Your task to perform on an android device: Go to notification settings Image 0: 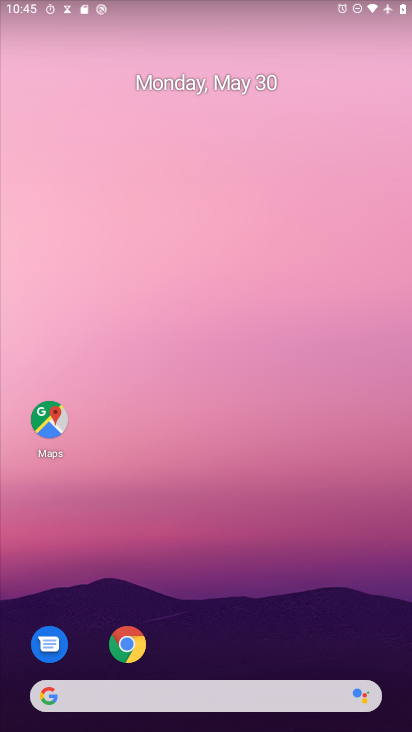
Step 0: drag from (240, 632) to (234, 91)
Your task to perform on an android device: Go to notification settings Image 1: 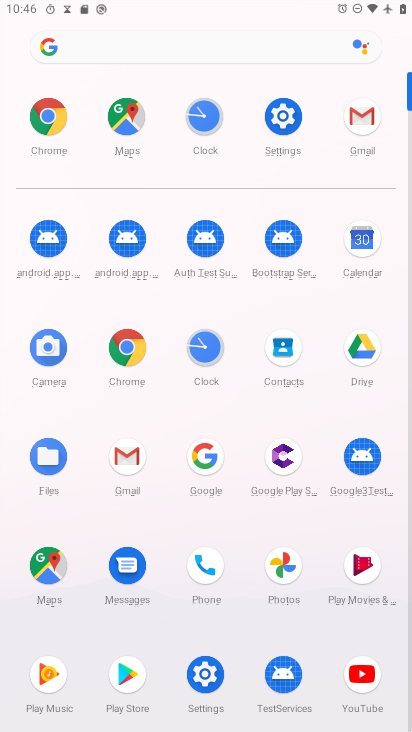
Step 1: click (277, 117)
Your task to perform on an android device: Go to notification settings Image 2: 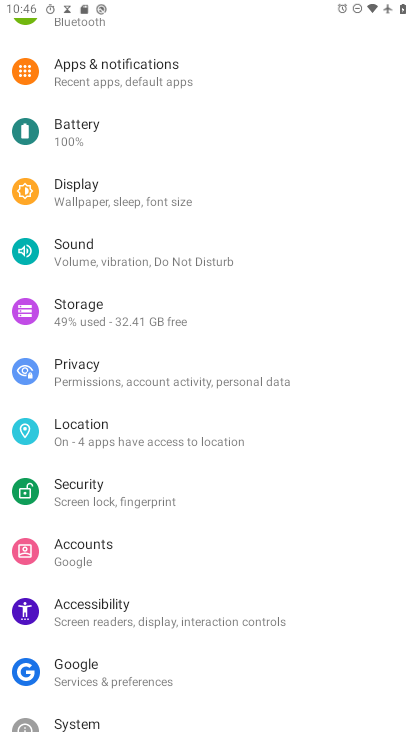
Step 2: click (128, 67)
Your task to perform on an android device: Go to notification settings Image 3: 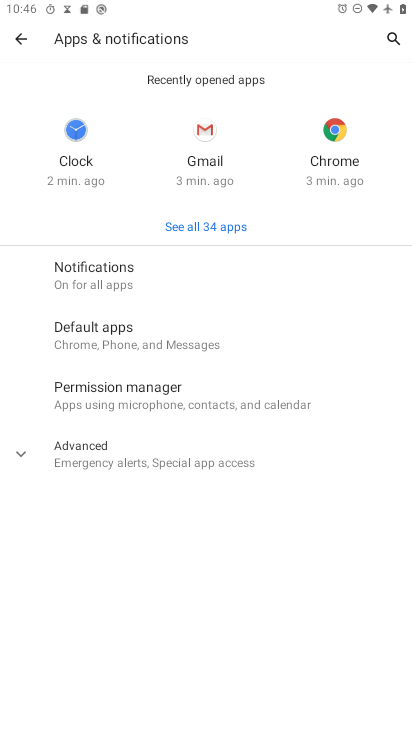
Step 3: click (133, 274)
Your task to perform on an android device: Go to notification settings Image 4: 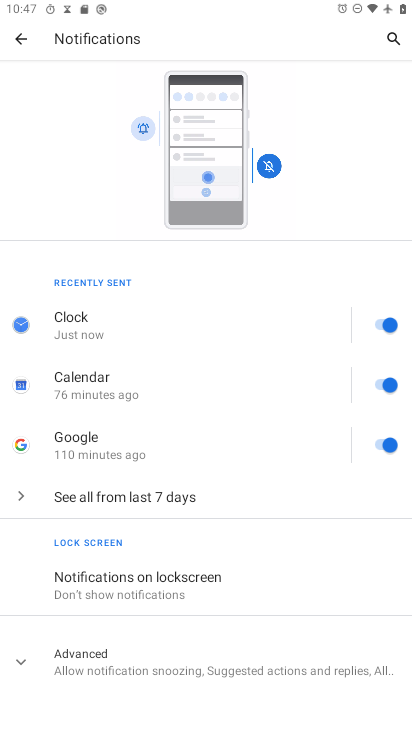
Step 4: task complete